Your task to perform on an android device: Do I have any events today? Image 0: 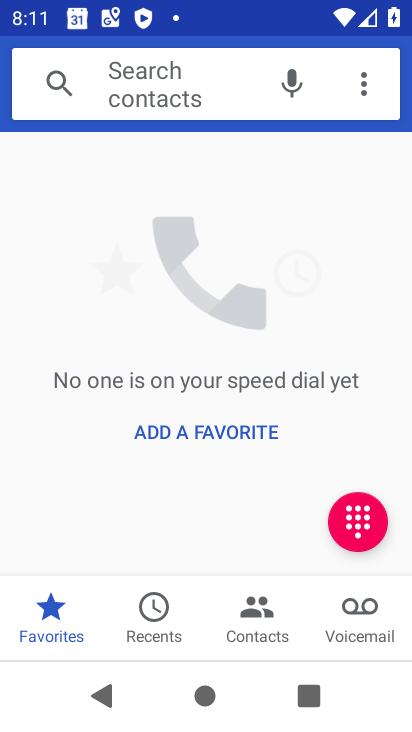
Step 0: press home button
Your task to perform on an android device: Do I have any events today? Image 1: 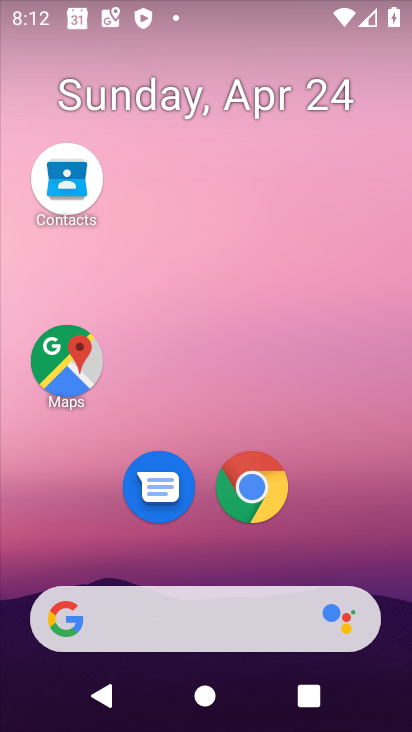
Step 1: drag from (202, 571) to (183, 5)
Your task to perform on an android device: Do I have any events today? Image 2: 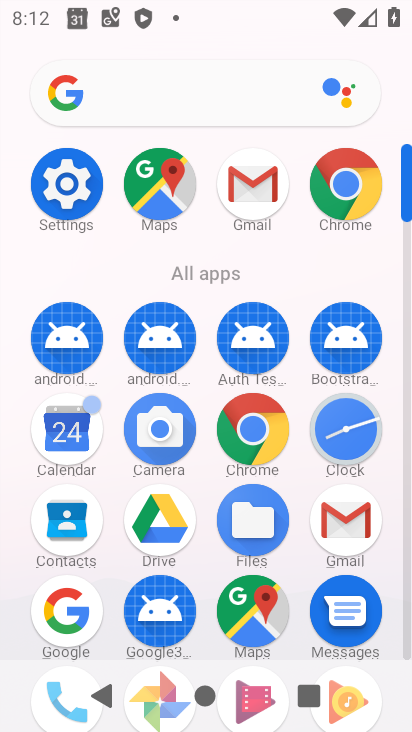
Step 2: click (68, 434)
Your task to perform on an android device: Do I have any events today? Image 3: 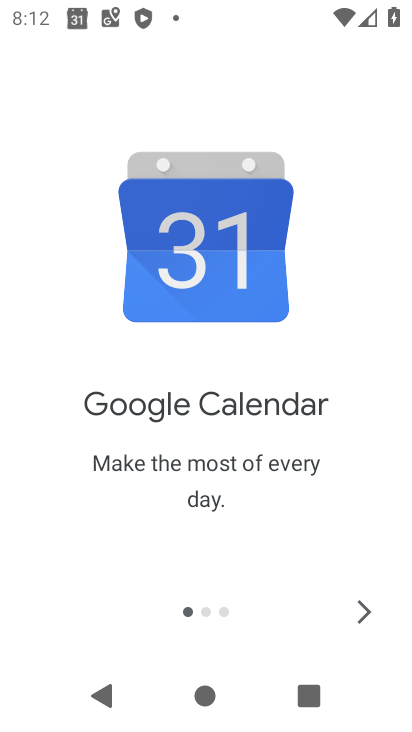
Step 3: click (358, 608)
Your task to perform on an android device: Do I have any events today? Image 4: 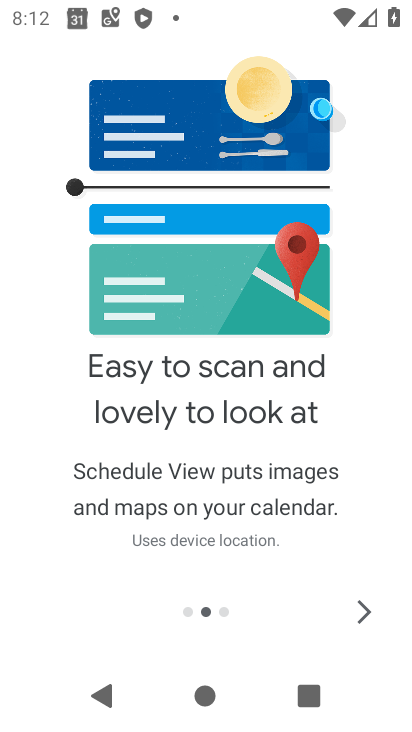
Step 4: click (358, 608)
Your task to perform on an android device: Do I have any events today? Image 5: 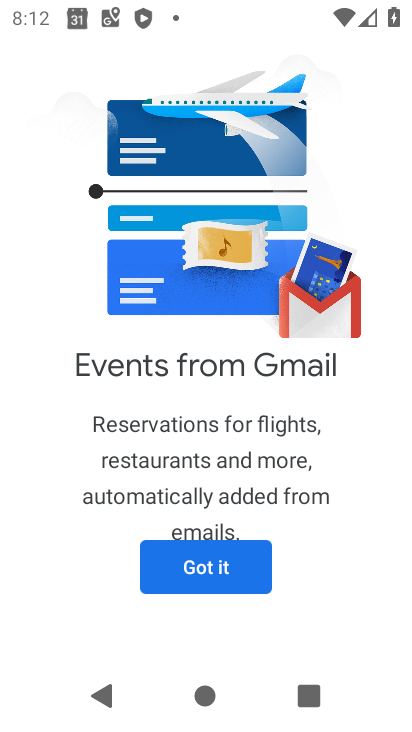
Step 5: click (228, 570)
Your task to perform on an android device: Do I have any events today? Image 6: 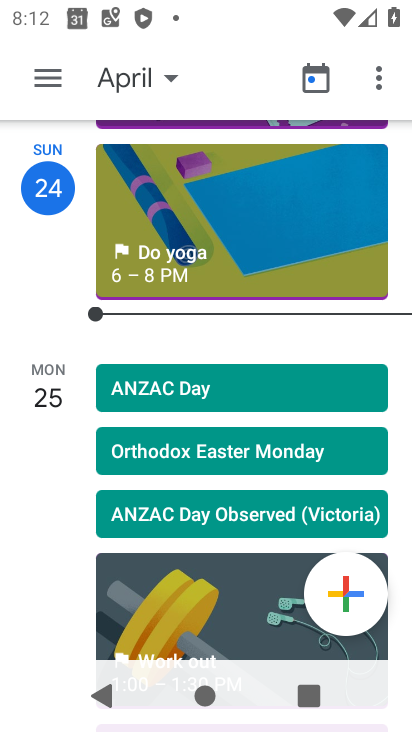
Step 6: click (44, 174)
Your task to perform on an android device: Do I have any events today? Image 7: 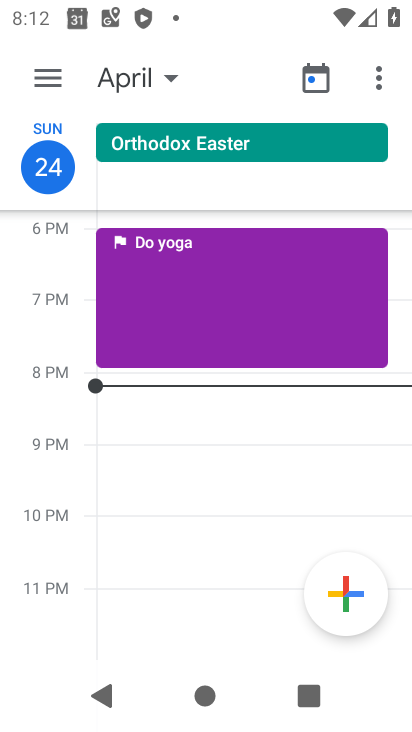
Step 7: task complete